Your task to perform on an android device: Clear all items from cart on walmart. Image 0: 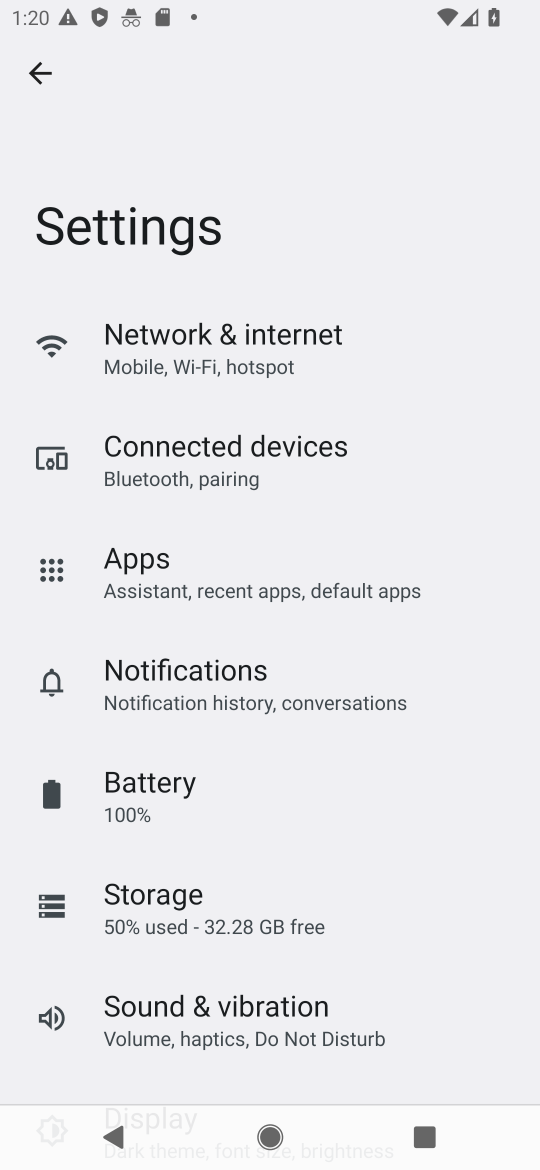
Step 0: task complete